Your task to perform on an android device: Open sound settings Image 0: 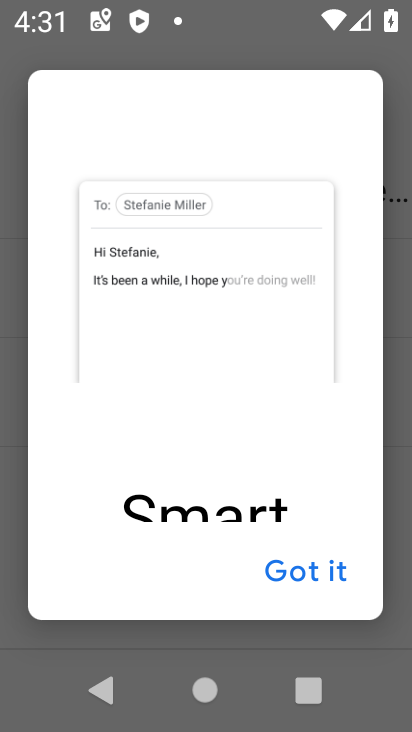
Step 0: press home button
Your task to perform on an android device: Open sound settings Image 1: 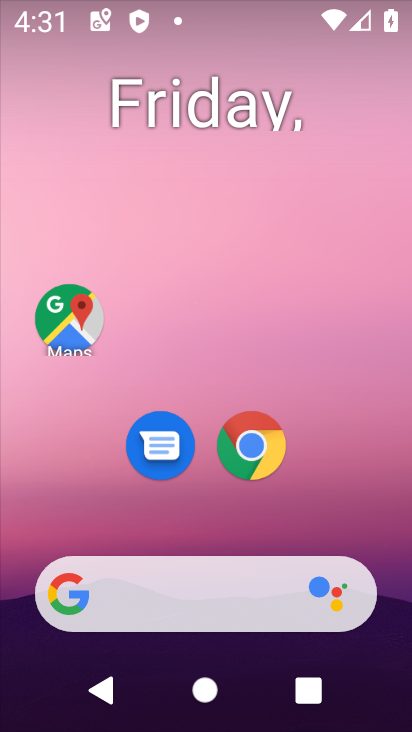
Step 1: drag from (384, 526) to (351, 198)
Your task to perform on an android device: Open sound settings Image 2: 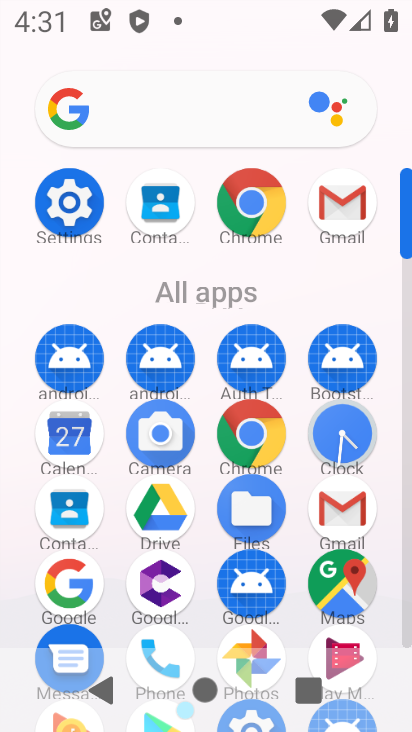
Step 2: click (61, 207)
Your task to perform on an android device: Open sound settings Image 3: 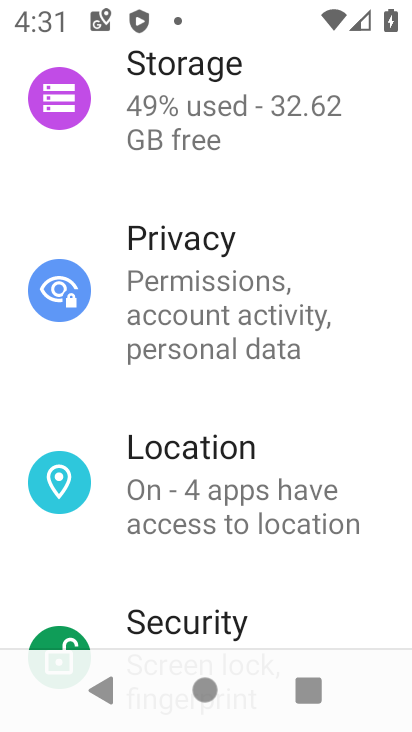
Step 3: drag from (310, 226) to (320, 645)
Your task to perform on an android device: Open sound settings Image 4: 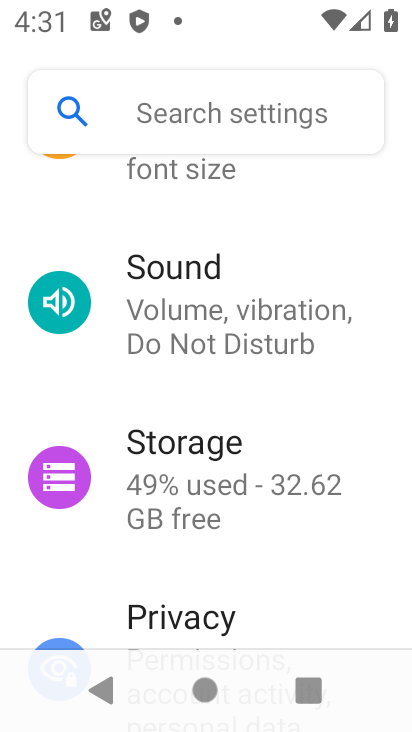
Step 4: click (245, 338)
Your task to perform on an android device: Open sound settings Image 5: 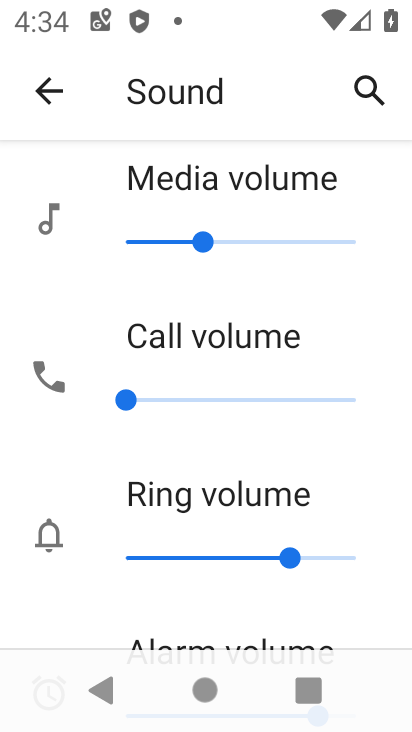
Step 5: task complete